Your task to perform on an android device: Search for "sony triple a" on bestbuy, select the first entry, and add it to the cart. Image 0: 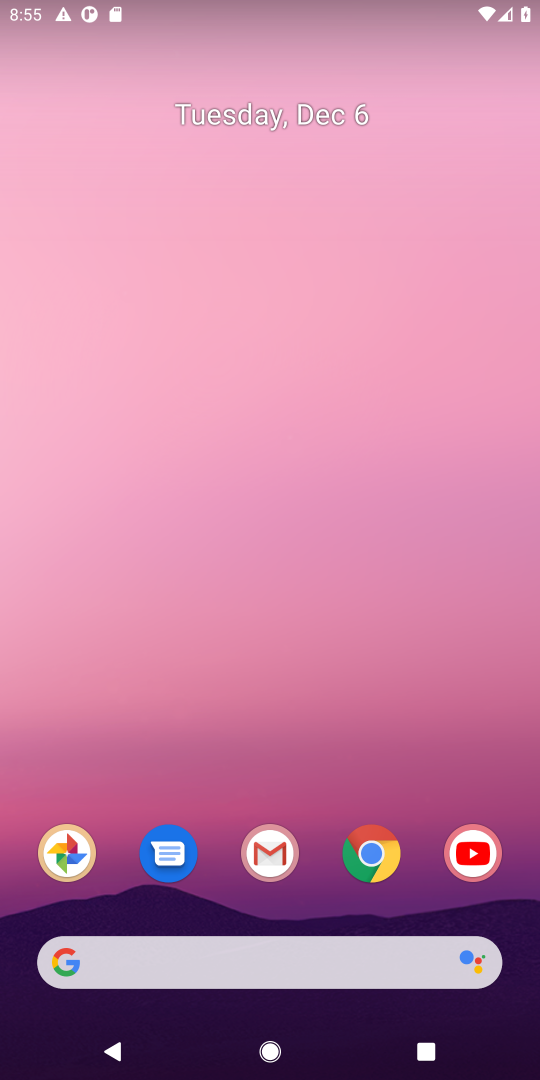
Step 0: click (271, 305)
Your task to perform on an android device: Search for "sony triple a" on bestbuy, select the first entry, and add it to the cart. Image 1: 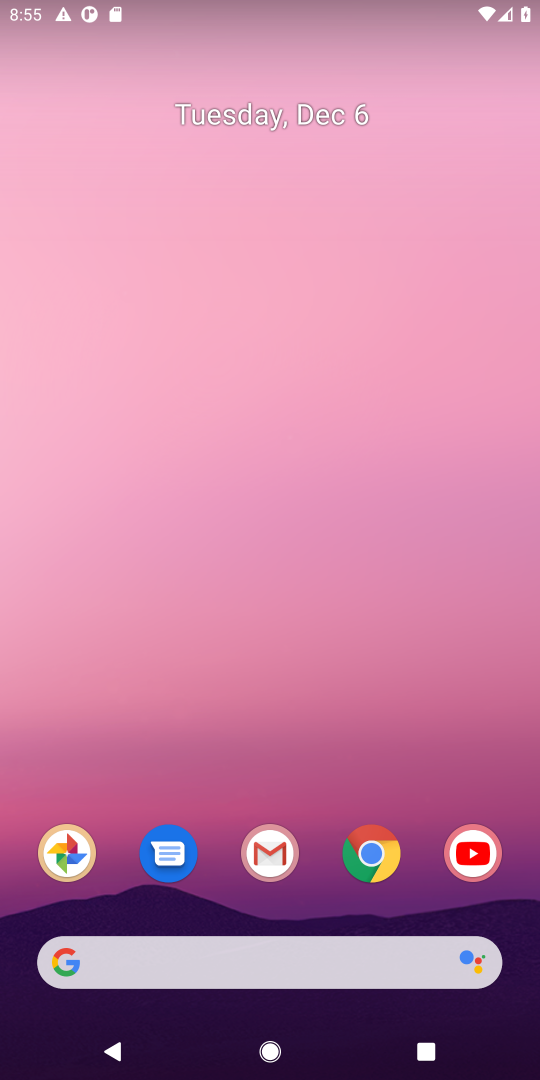
Step 1: drag from (291, 906) to (271, 332)
Your task to perform on an android device: Search for "sony triple a" on bestbuy, select the first entry, and add it to the cart. Image 2: 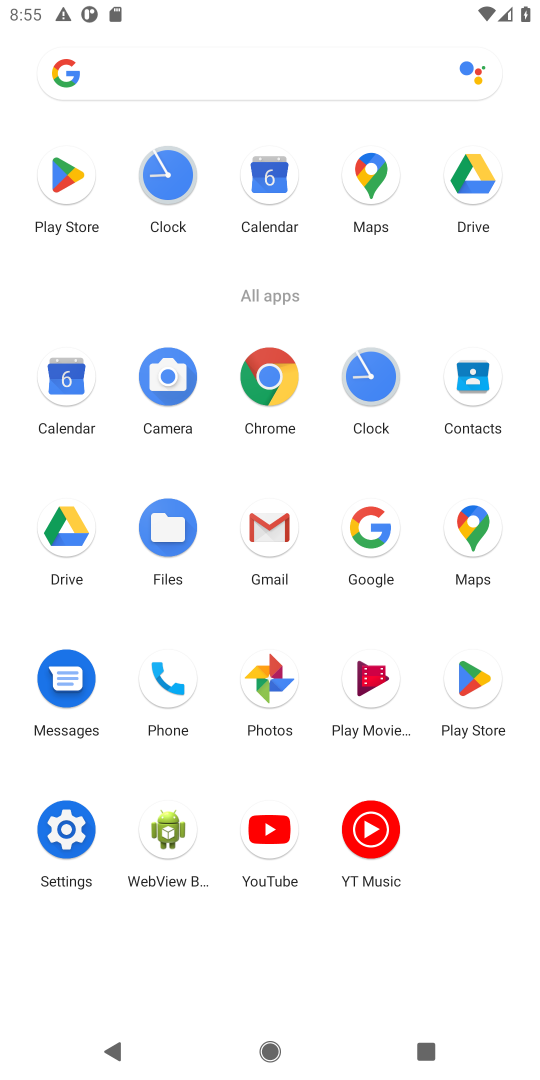
Step 2: click (371, 541)
Your task to perform on an android device: Search for "sony triple a" on bestbuy, select the first entry, and add it to the cart. Image 3: 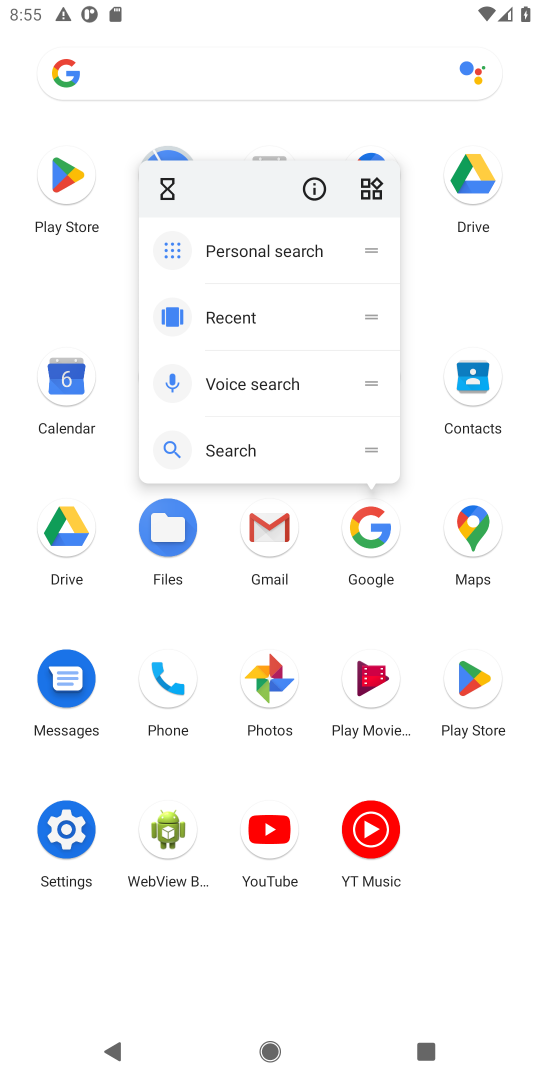
Step 3: click (373, 521)
Your task to perform on an android device: Search for "sony triple a" on bestbuy, select the first entry, and add it to the cart. Image 4: 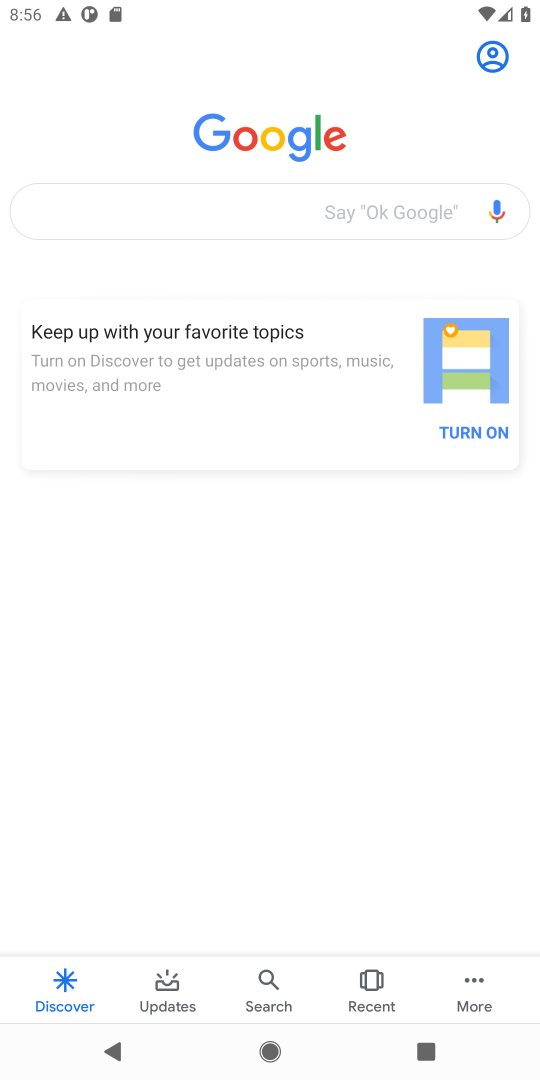
Step 4: click (146, 205)
Your task to perform on an android device: Search for "sony triple a" on bestbuy, select the first entry, and add it to the cart. Image 5: 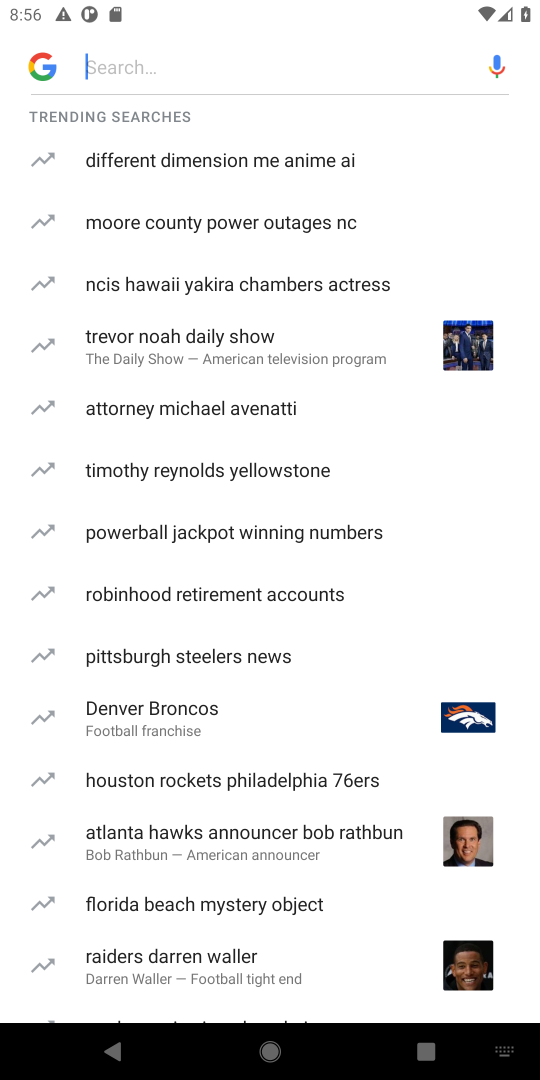
Step 5: type "bestbuy"
Your task to perform on an android device: Search for "sony triple a" on bestbuy, select the first entry, and add it to the cart. Image 6: 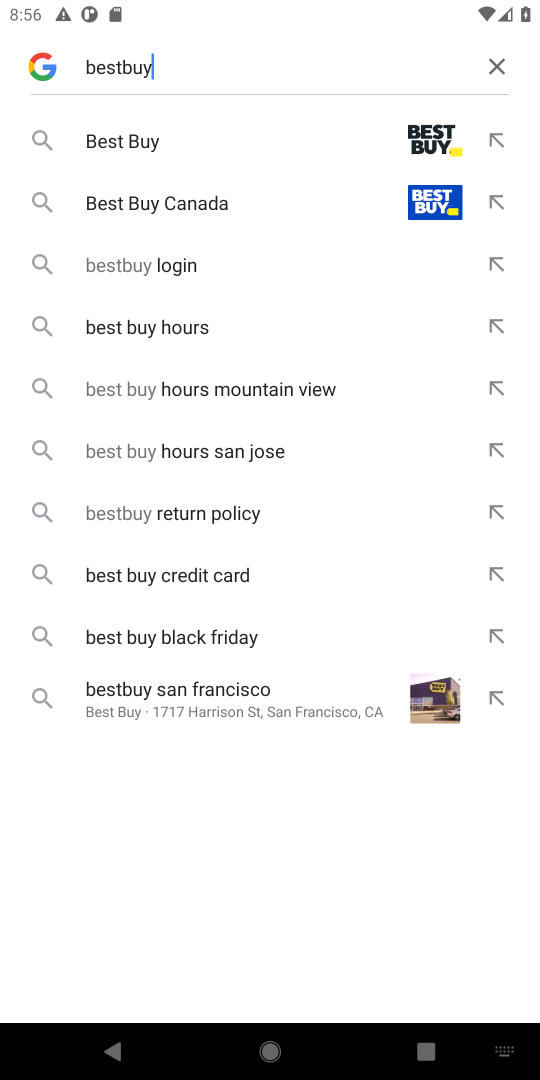
Step 6: click (444, 149)
Your task to perform on an android device: Search for "sony triple a" on bestbuy, select the first entry, and add it to the cart. Image 7: 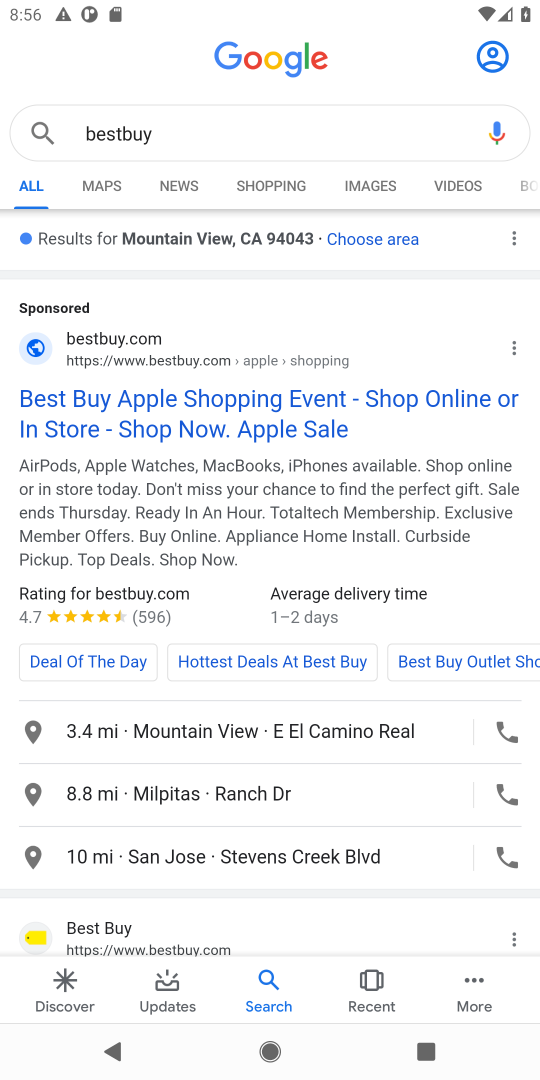
Step 7: click (229, 424)
Your task to perform on an android device: Search for "sony triple a" on bestbuy, select the first entry, and add it to the cart. Image 8: 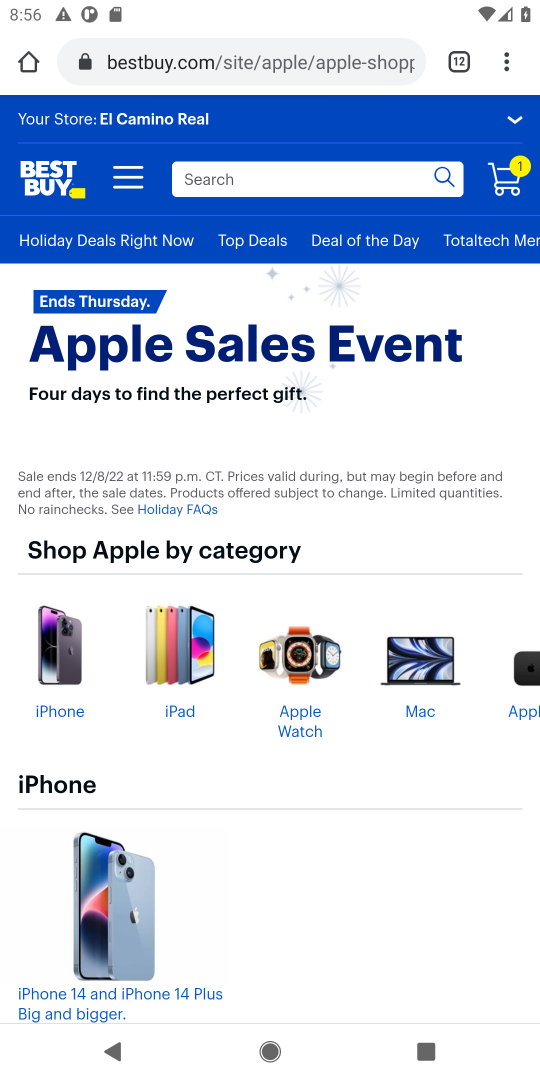
Step 8: click (245, 179)
Your task to perform on an android device: Search for "sony triple a" on bestbuy, select the first entry, and add it to the cart. Image 9: 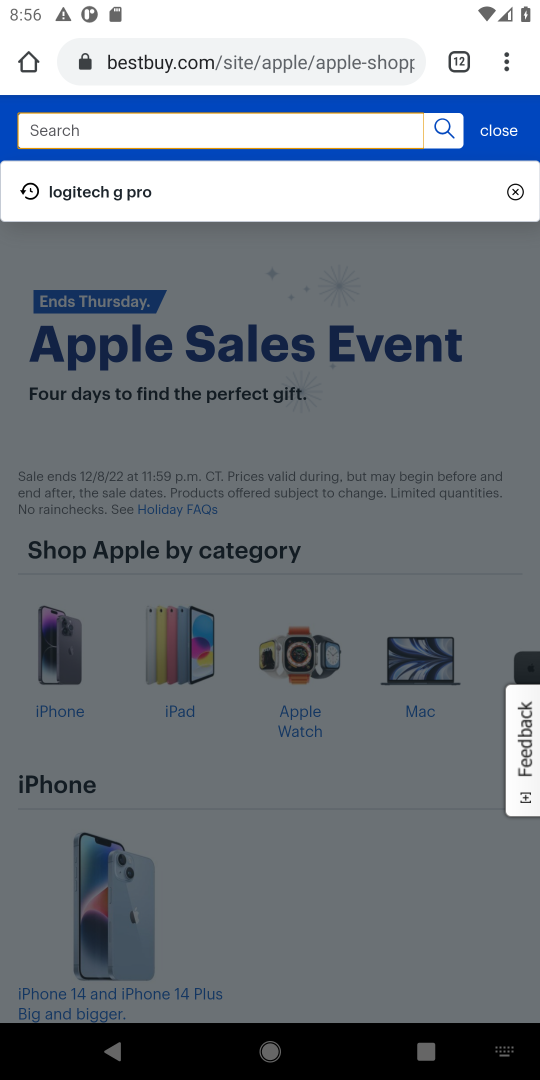
Step 9: type "sony triple a"
Your task to perform on an android device: Search for "sony triple a" on bestbuy, select the first entry, and add it to the cart. Image 10: 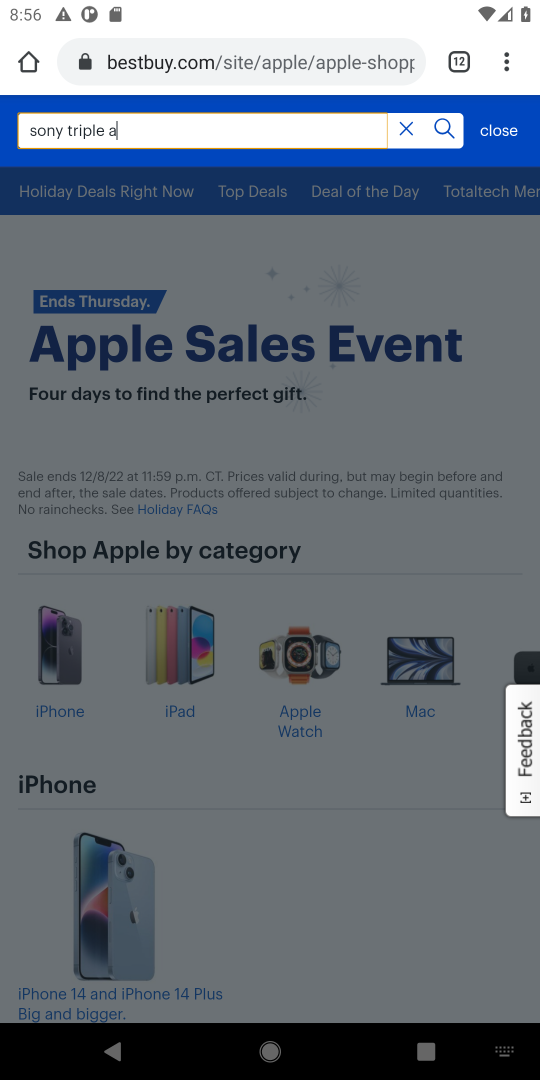
Step 10: click (443, 128)
Your task to perform on an android device: Search for "sony triple a" on bestbuy, select the first entry, and add it to the cart. Image 11: 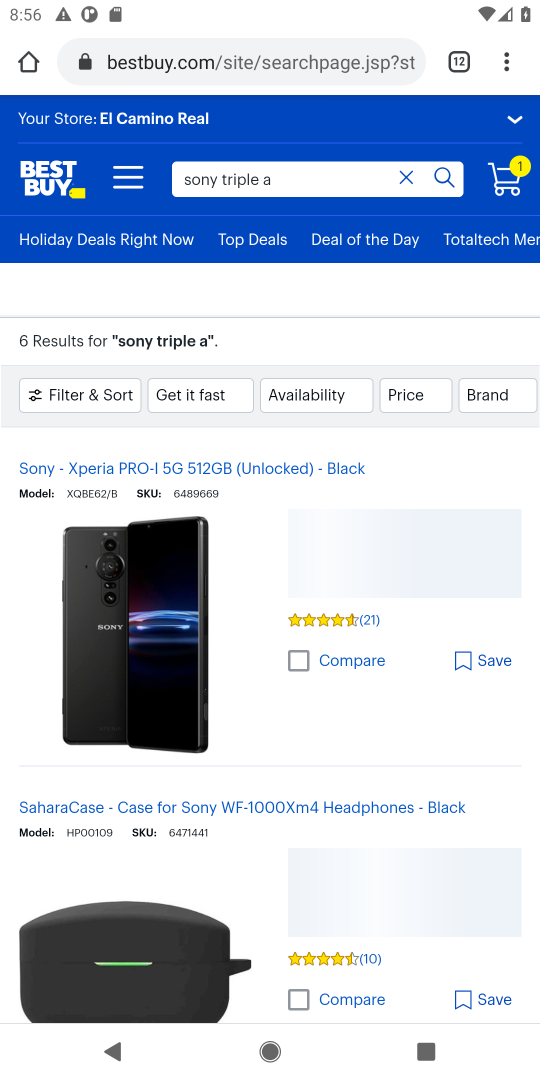
Step 11: drag from (206, 797) to (229, 506)
Your task to perform on an android device: Search for "sony triple a" on bestbuy, select the first entry, and add it to the cart. Image 12: 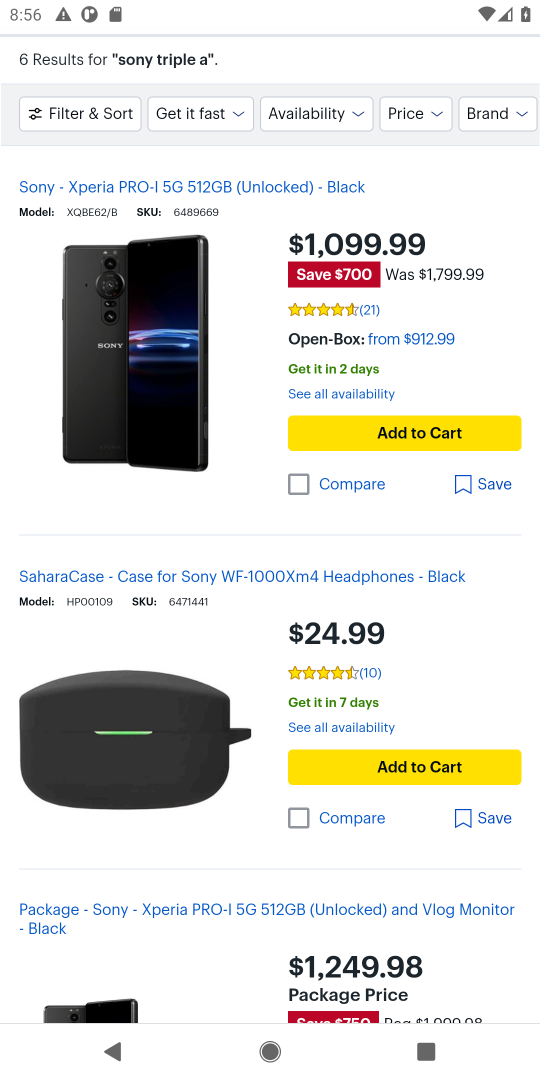
Step 12: click (444, 432)
Your task to perform on an android device: Search for "sony triple a" on bestbuy, select the first entry, and add it to the cart. Image 13: 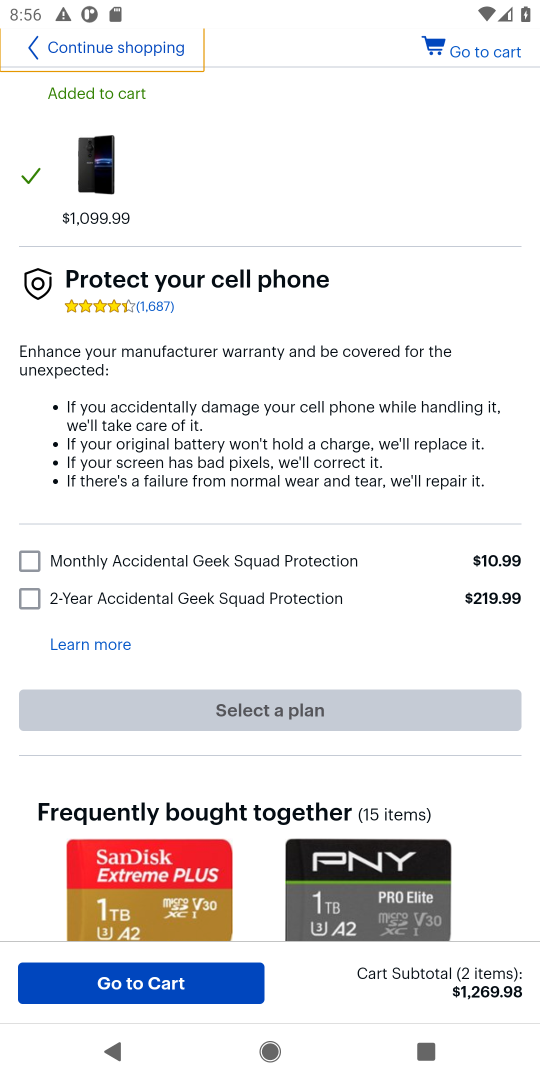
Step 13: task complete